Your task to perform on an android device: toggle pop-ups in chrome Image 0: 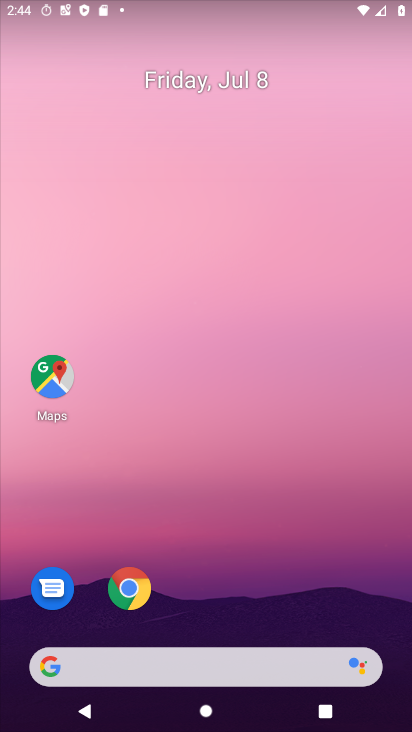
Step 0: drag from (213, 621) to (214, 85)
Your task to perform on an android device: toggle pop-ups in chrome Image 1: 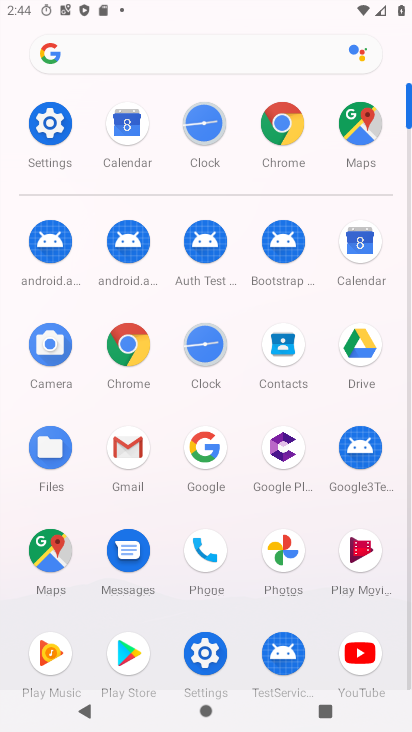
Step 1: click (298, 130)
Your task to perform on an android device: toggle pop-ups in chrome Image 2: 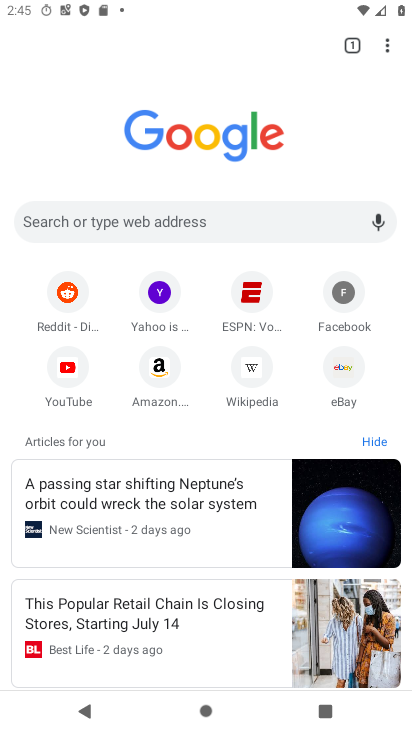
Step 2: drag from (385, 49) to (242, 376)
Your task to perform on an android device: toggle pop-ups in chrome Image 3: 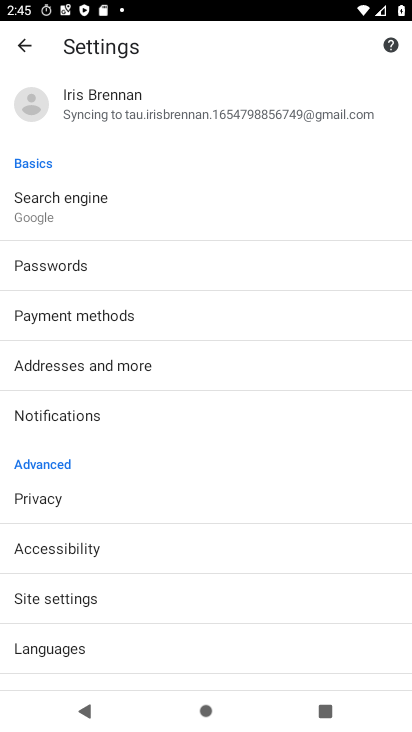
Step 3: click (57, 606)
Your task to perform on an android device: toggle pop-ups in chrome Image 4: 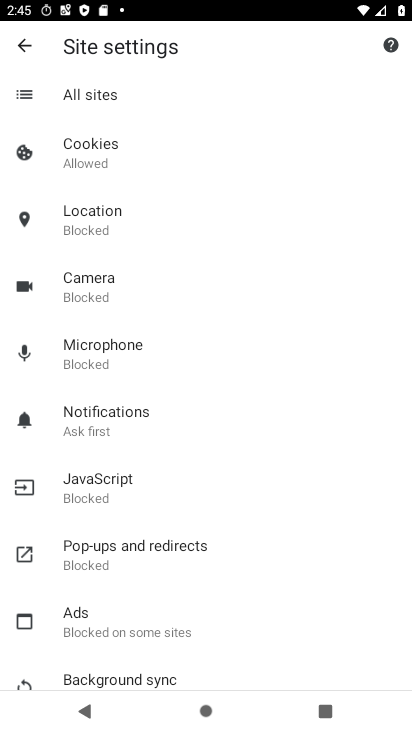
Step 4: click (114, 555)
Your task to perform on an android device: toggle pop-ups in chrome Image 5: 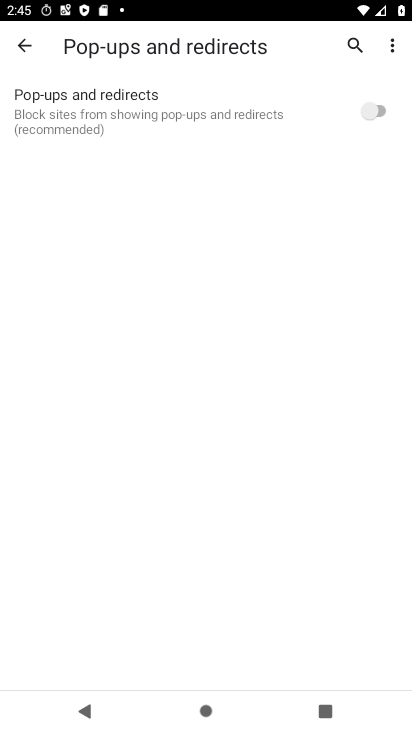
Step 5: click (376, 110)
Your task to perform on an android device: toggle pop-ups in chrome Image 6: 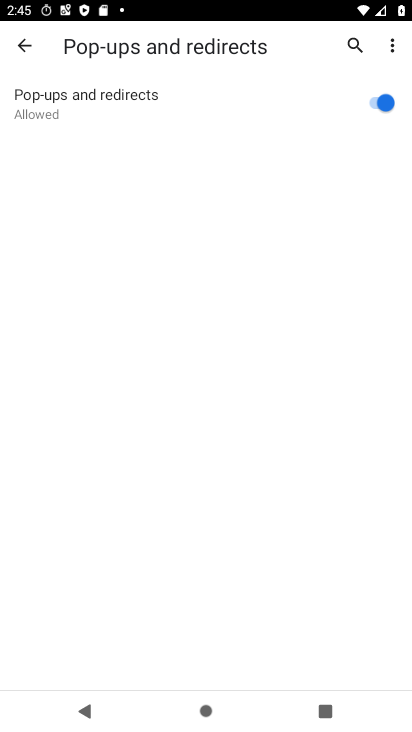
Step 6: task complete